Your task to perform on an android device: see creations saved in the google photos Image 0: 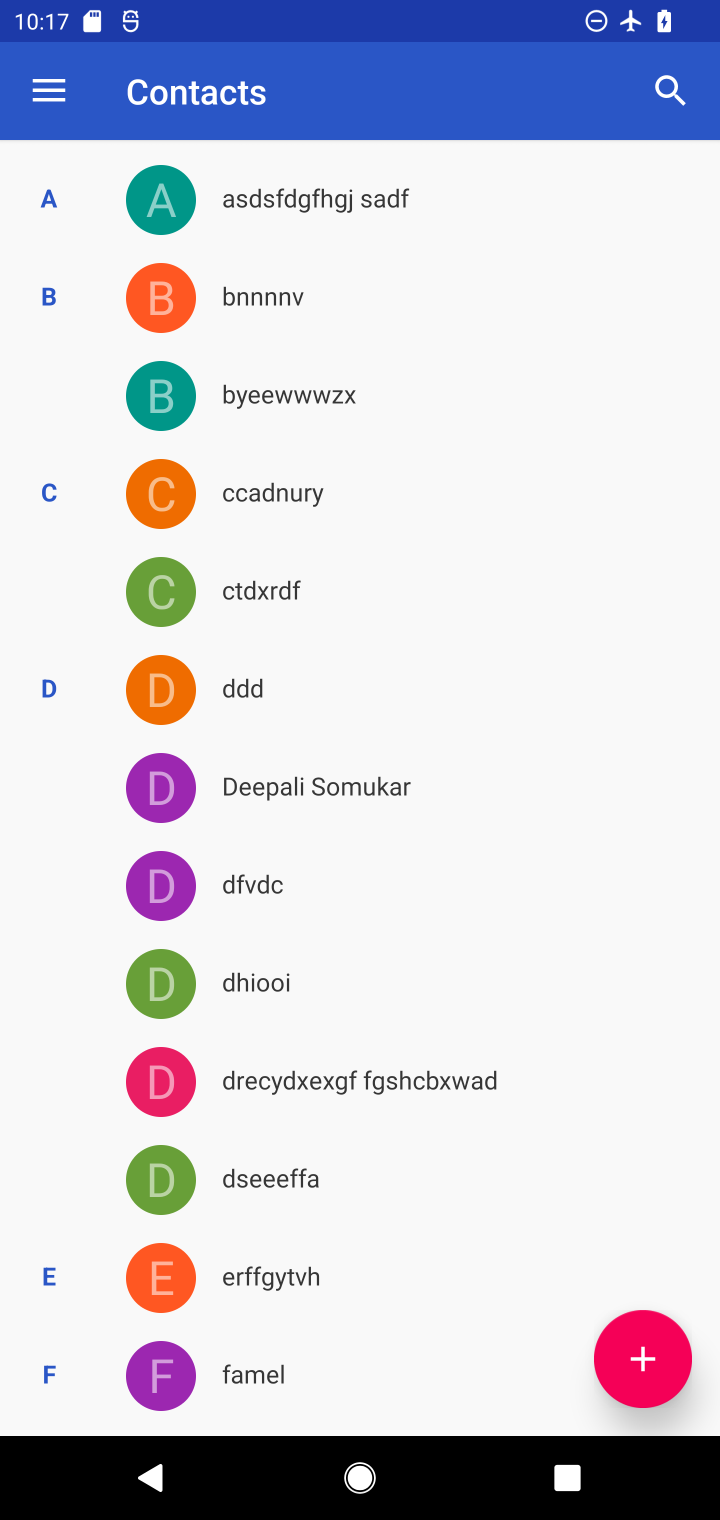
Step 0: press home button
Your task to perform on an android device: see creations saved in the google photos Image 1: 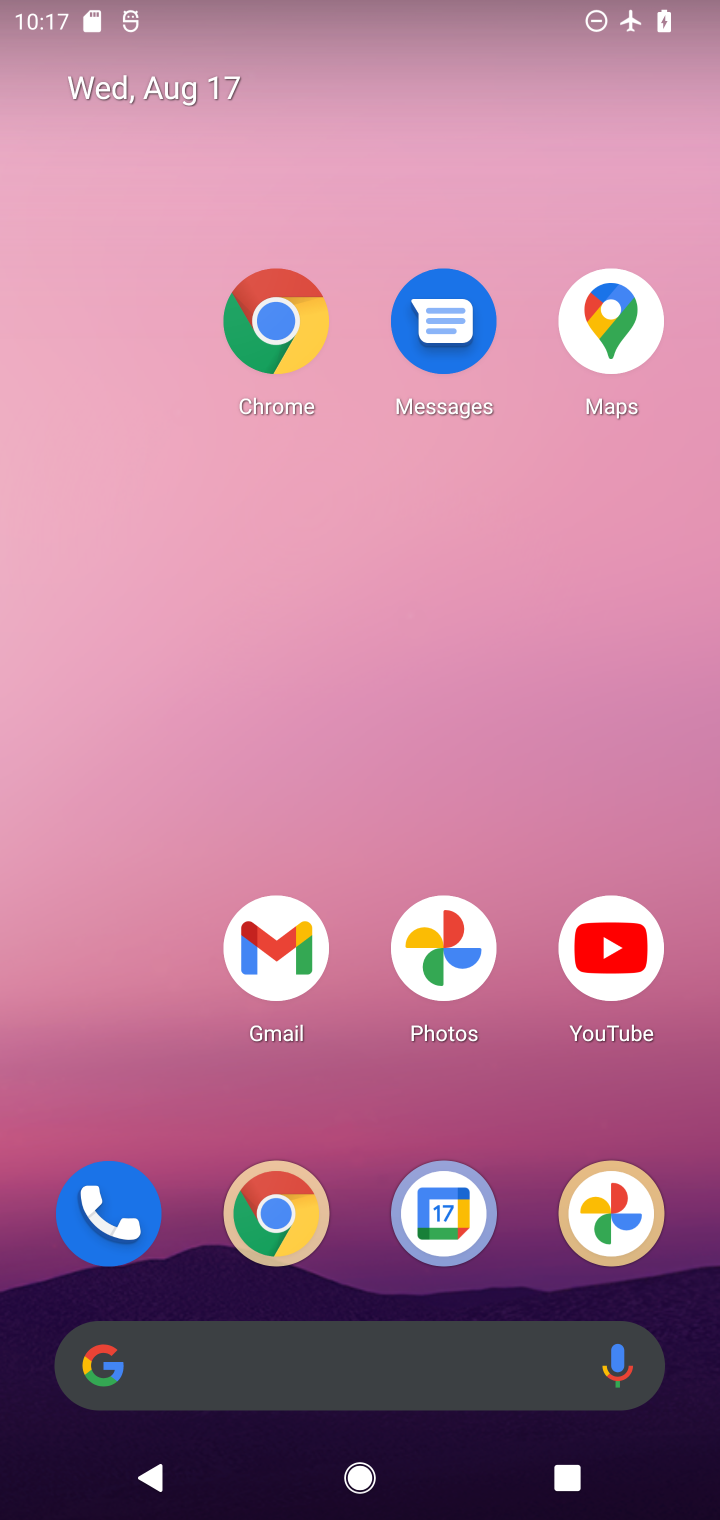
Step 1: click (613, 1186)
Your task to perform on an android device: see creations saved in the google photos Image 2: 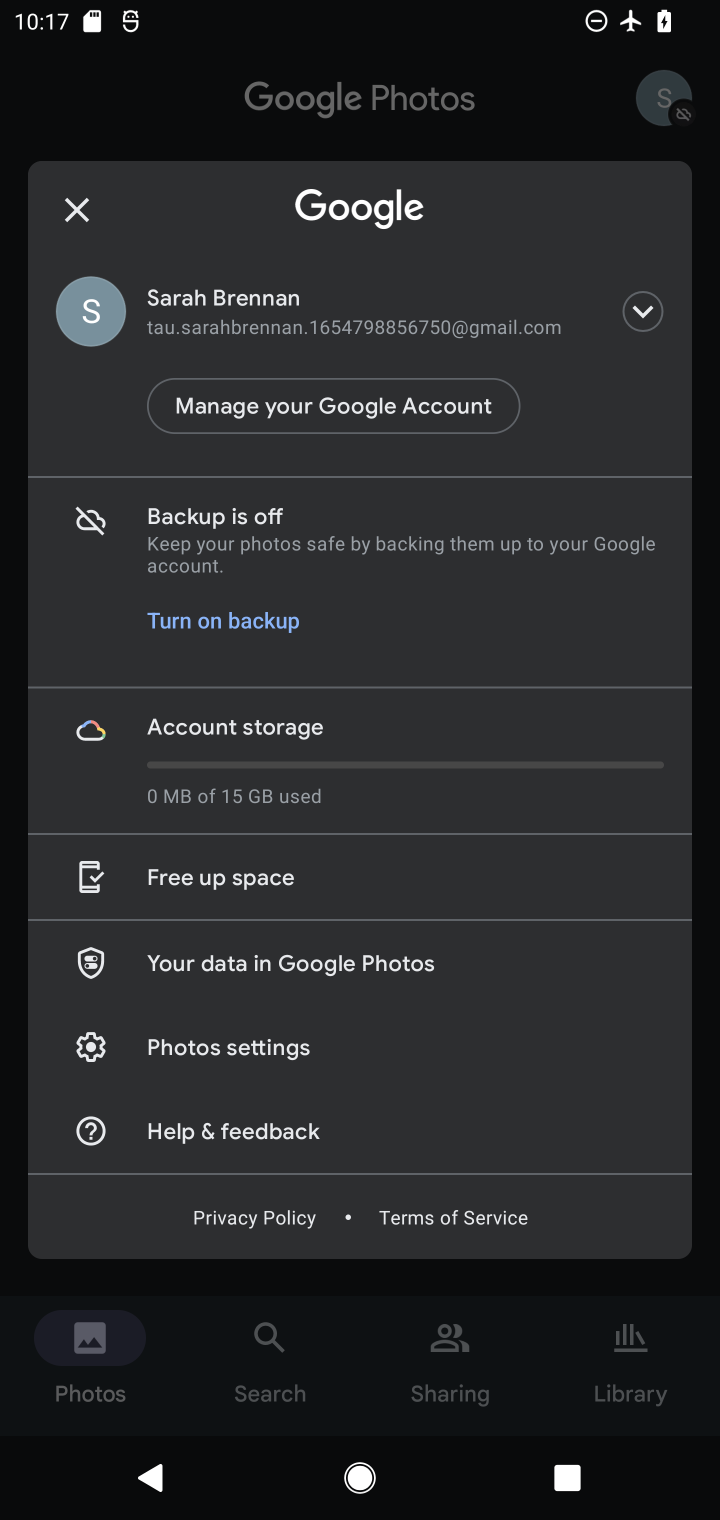
Step 2: task complete